Your task to perform on an android device: turn on wifi Image 0: 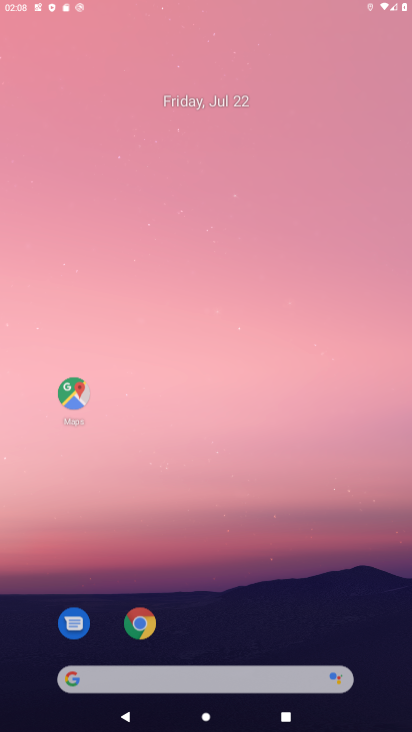
Step 0: drag from (51, 572) to (226, 170)
Your task to perform on an android device: turn on wifi Image 1: 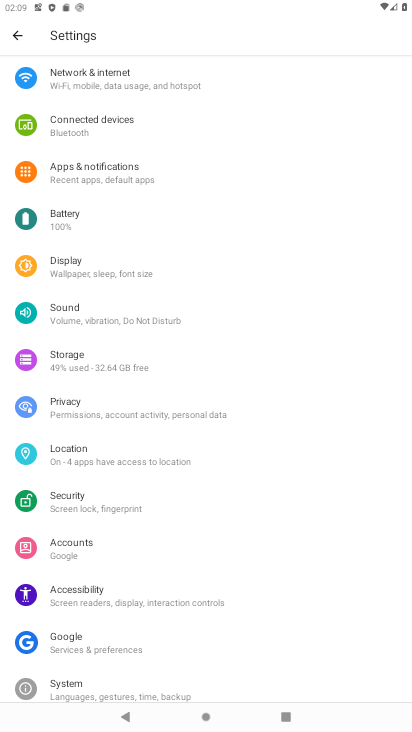
Step 1: task complete